Your task to perform on an android device: move a message to another label in the gmail app Image 0: 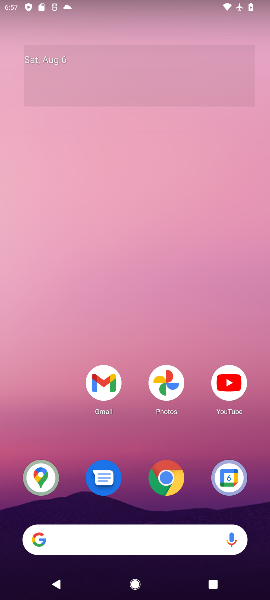
Step 0: press home button
Your task to perform on an android device: move a message to another label in the gmail app Image 1: 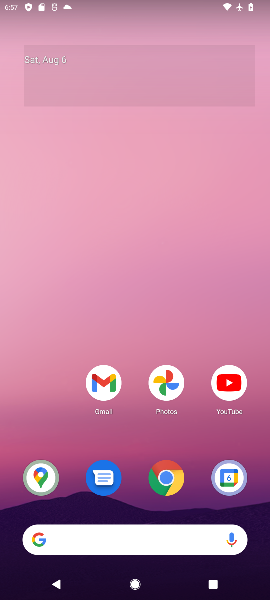
Step 1: click (103, 385)
Your task to perform on an android device: move a message to another label in the gmail app Image 2: 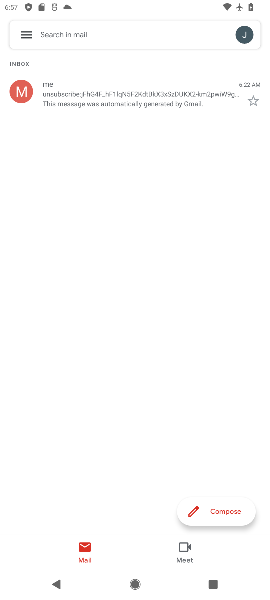
Step 2: click (112, 94)
Your task to perform on an android device: move a message to another label in the gmail app Image 3: 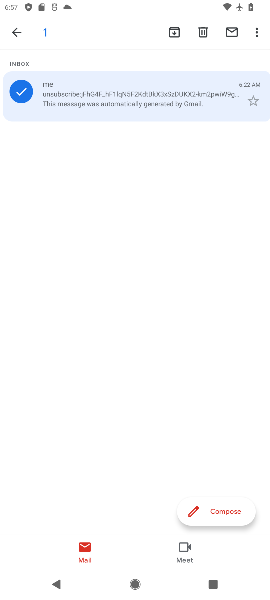
Step 3: click (261, 36)
Your task to perform on an android device: move a message to another label in the gmail app Image 4: 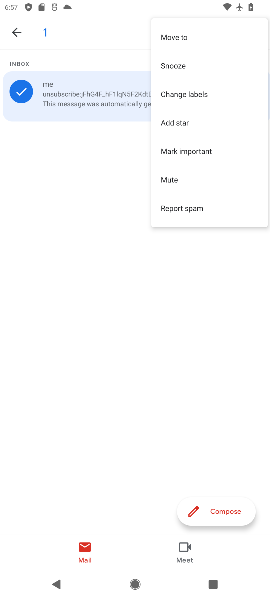
Step 4: click (184, 35)
Your task to perform on an android device: move a message to another label in the gmail app Image 5: 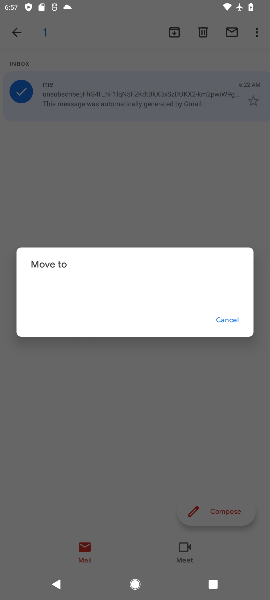
Step 5: click (188, 321)
Your task to perform on an android device: move a message to another label in the gmail app Image 6: 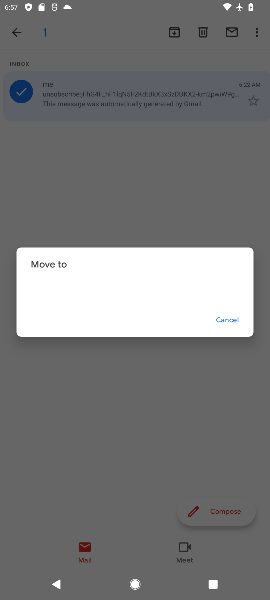
Step 6: click (256, 37)
Your task to perform on an android device: move a message to another label in the gmail app Image 7: 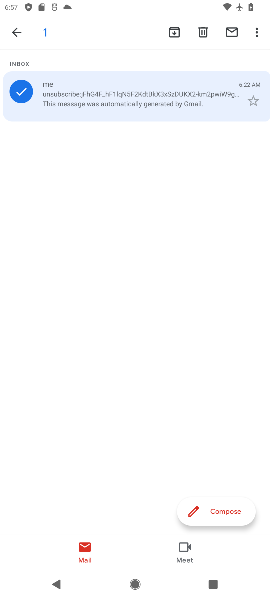
Step 7: click (251, 31)
Your task to perform on an android device: move a message to another label in the gmail app Image 8: 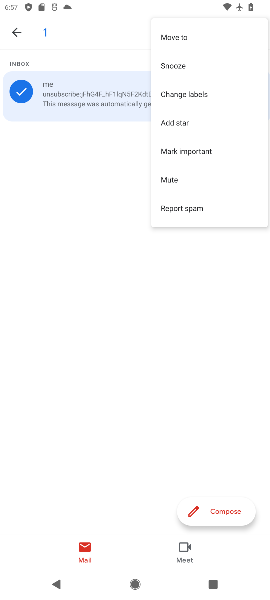
Step 8: click (196, 93)
Your task to perform on an android device: move a message to another label in the gmail app Image 9: 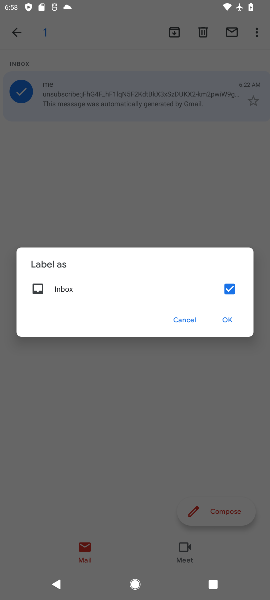
Step 9: click (228, 315)
Your task to perform on an android device: move a message to another label in the gmail app Image 10: 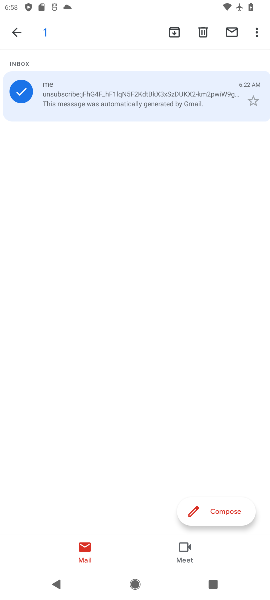
Step 10: task complete